Your task to perform on an android device: Go to calendar. Show me events next week Image 0: 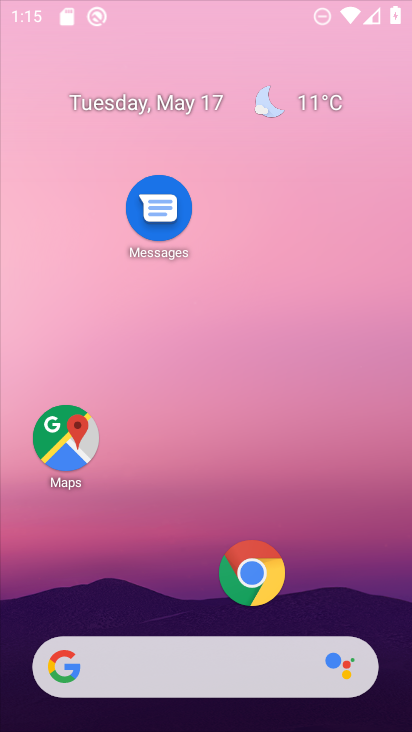
Step 0: press home button
Your task to perform on an android device: Go to calendar. Show me events next week Image 1: 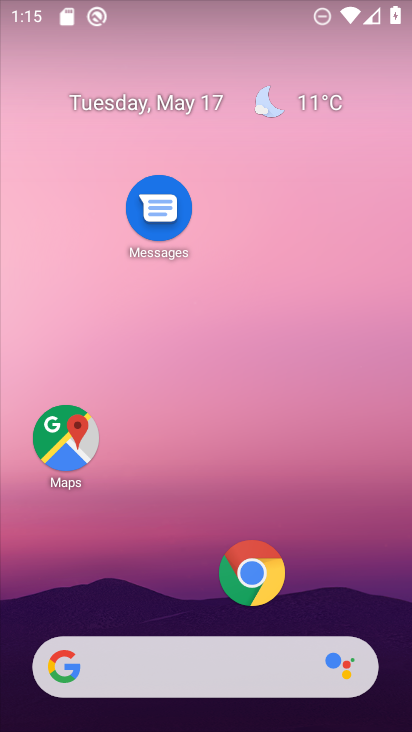
Step 1: drag from (207, 607) to (225, 6)
Your task to perform on an android device: Go to calendar. Show me events next week Image 2: 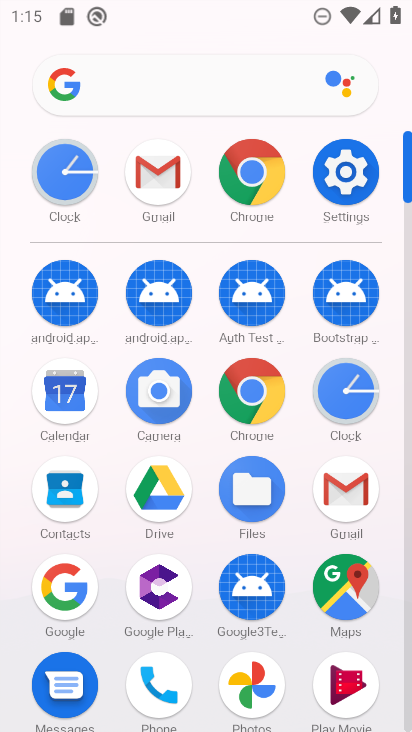
Step 2: click (64, 388)
Your task to perform on an android device: Go to calendar. Show me events next week Image 3: 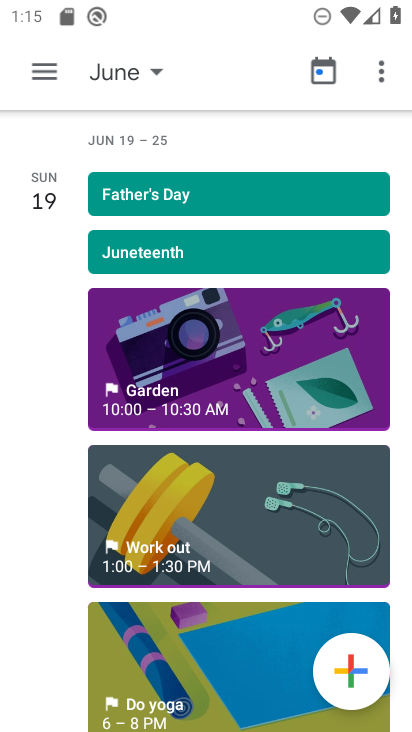
Step 3: click (153, 73)
Your task to perform on an android device: Go to calendar. Show me events next week Image 4: 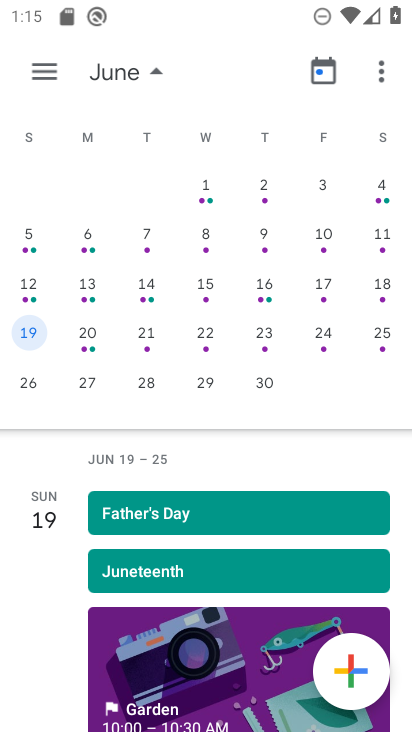
Step 4: drag from (38, 276) to (411, 281)
Your task to perform on an android device: Go to calendar. Show me events next week Image 5: 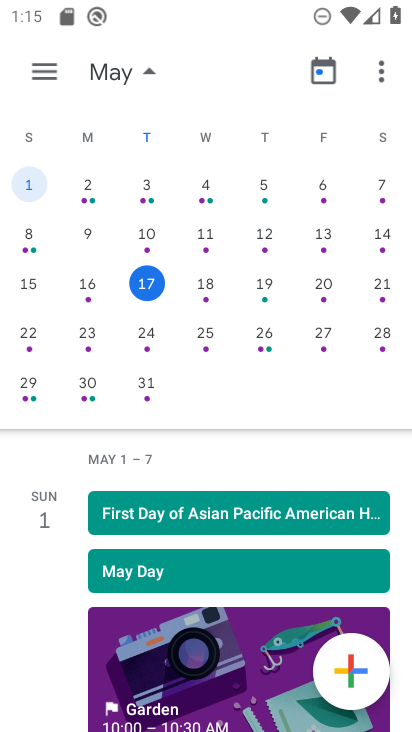
Step 5: click (144, 280)
Your task to perform on an android device: Go to calendar. Show me events next week Image 6: 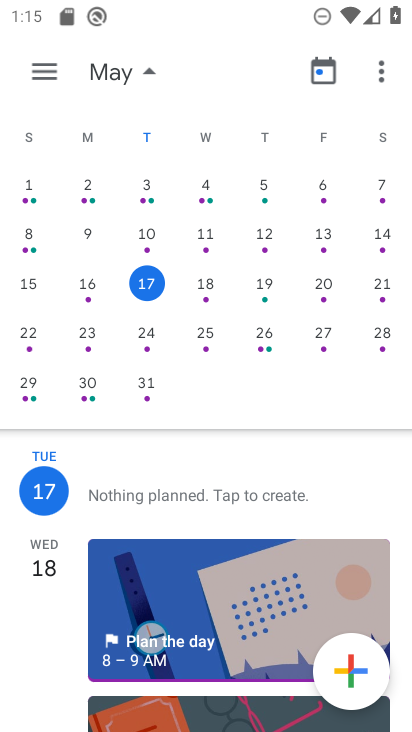
Step 6: click (144, 64)
Your task to perform on an android device: Go to calendar. Show me events next week Image 7: 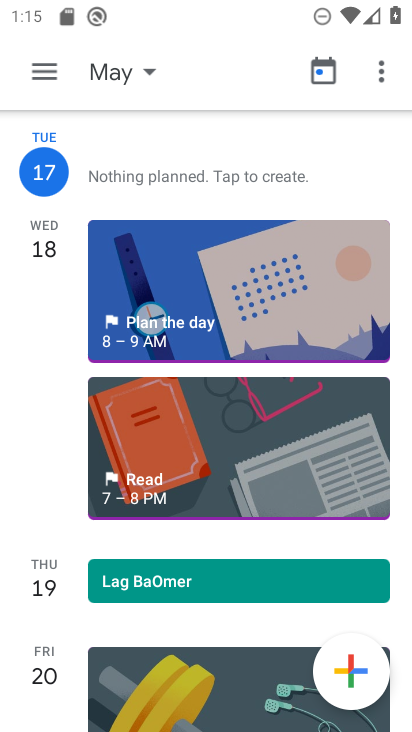
Step 7: click (56, 68)
Your task to perform on an android device: Go to calendar. Show me events next week Image 8: 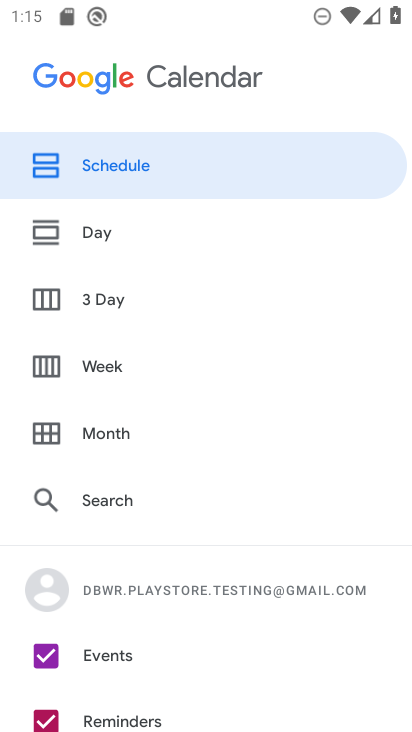
Step 8: click (72, 366)
Your task to perform on an android device: Go to calendar. Show me events next week Image 9: 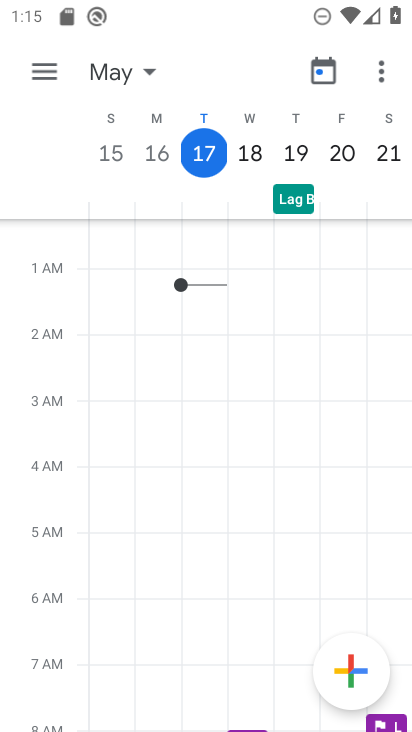
Step 9: drag from (393, 146) to (38, 161)
Your task to perform on an android device: Go to calendar. Show me events next week Image 10: 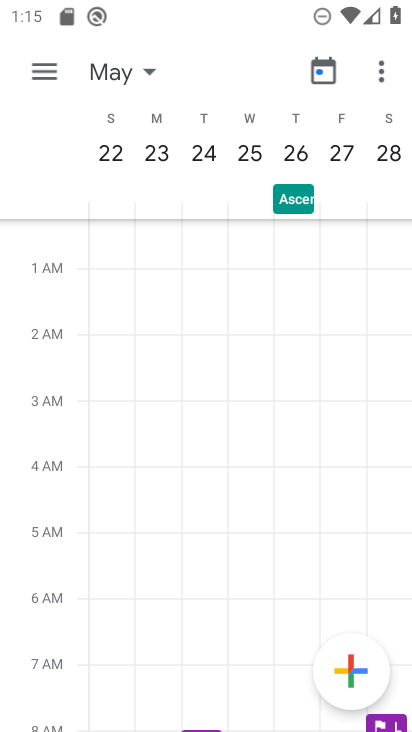
Step 10: click (108, 145)
Your task to perform on an android device: Go to calendar. Show me events next week Image 11: 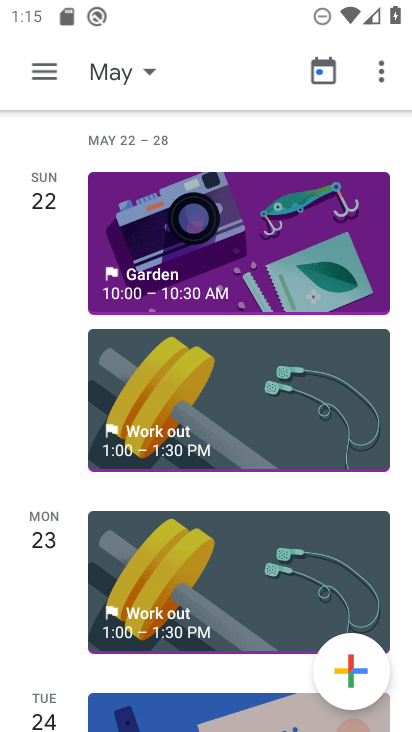
Step 11: click (45, 78)
Your task to perform on an android device: Go to calendar. Show me events next week Image 12: 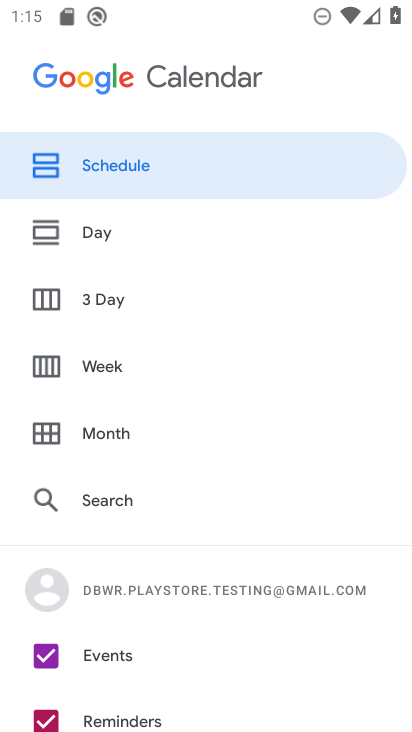
Step 12: drag from (103, 542) to (137, 100)
Your task to perform on an android device: Go to calendar. Show me events next week Image 13: 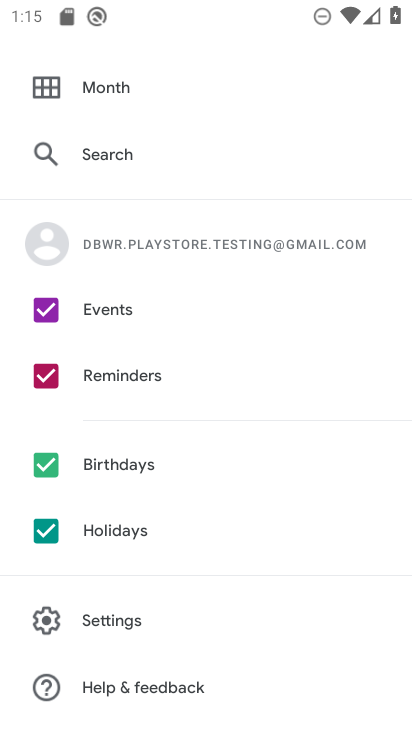
Step 13: click (49, 527)
Your task to perform on an android device: Go to calendar. Show me events next week Image 14: 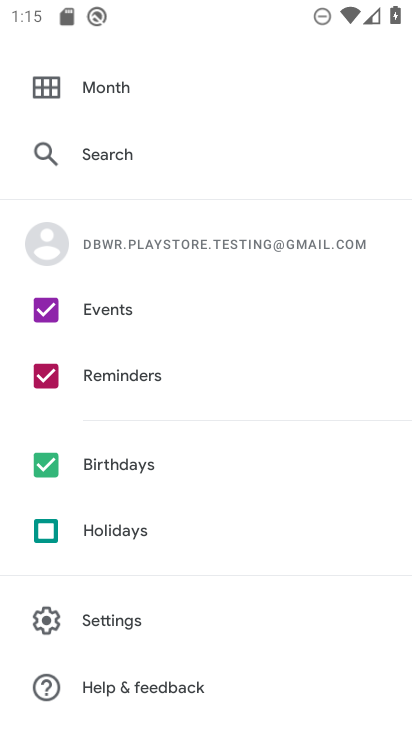
Step 14: click (44, 466)
Your task to perform on an android device: Go to calendar. Show me events next week Image 15: 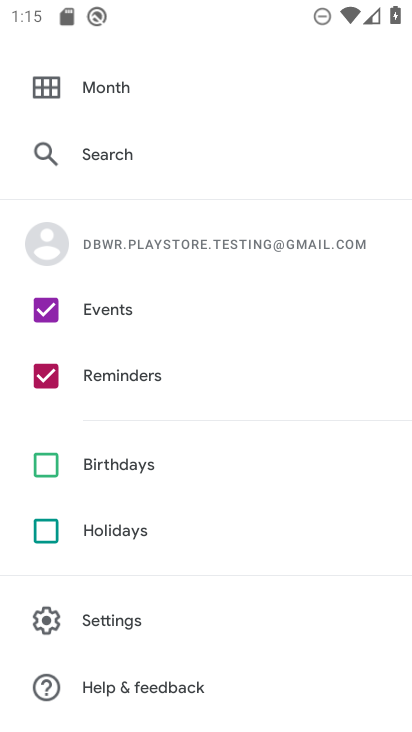
Step 15: click (38, 374)
Your task to perform on an android device: Go to calendar. Show me events next week Image 16: 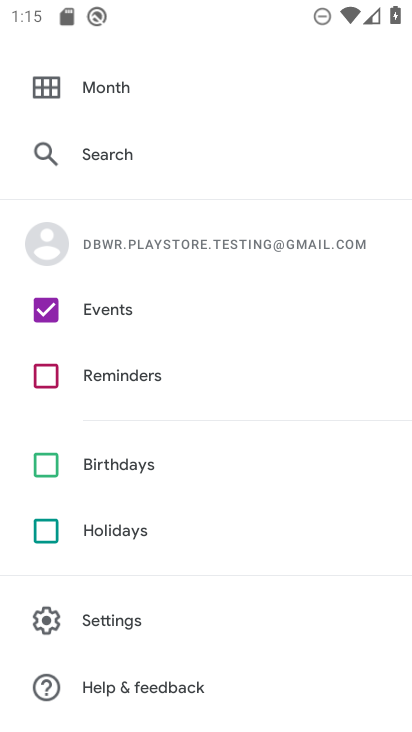
Step 16: drag from (156, 157) to (140, 643)
Your task to perform on an android device: Go to calendar. Show me events next week Image 17: 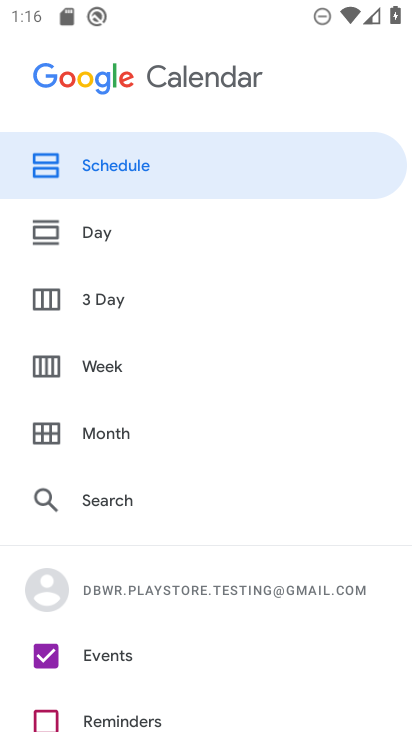
Step 17: click (78, 164)
Your task to perform on an android device: Go to calendar. Show me events next week Image 18: 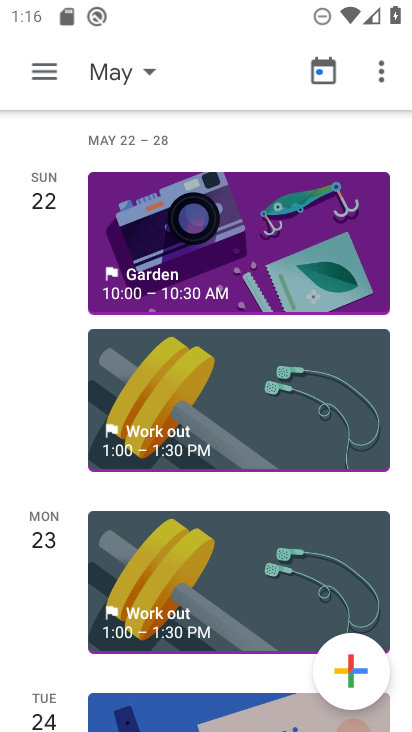
Step 18: task complete